Your task to perform on an android device: change keyboard looks Image 0: 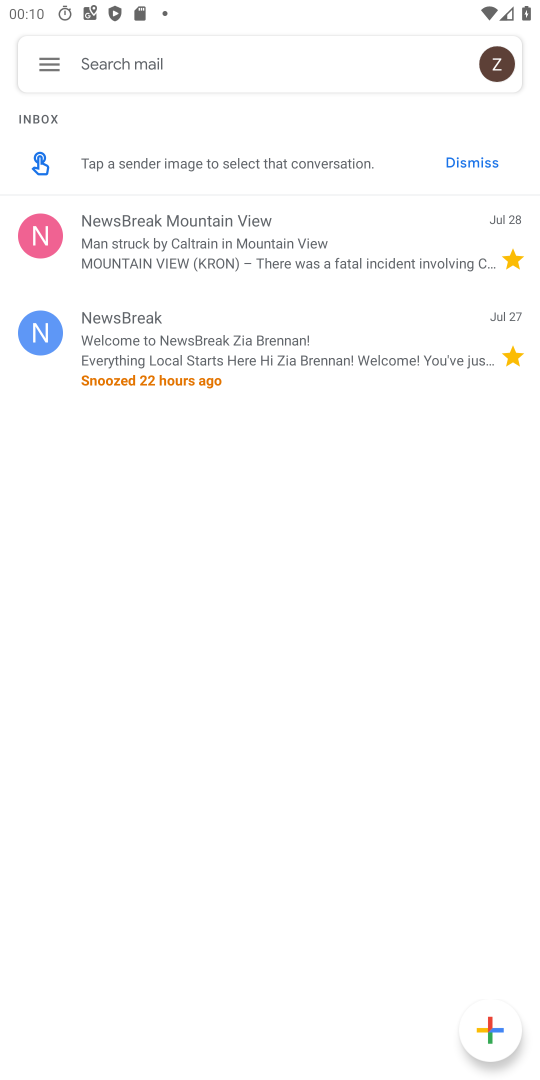
Step 0: press home button
Your task to perform on an android device: change keyboard looks Image 1: 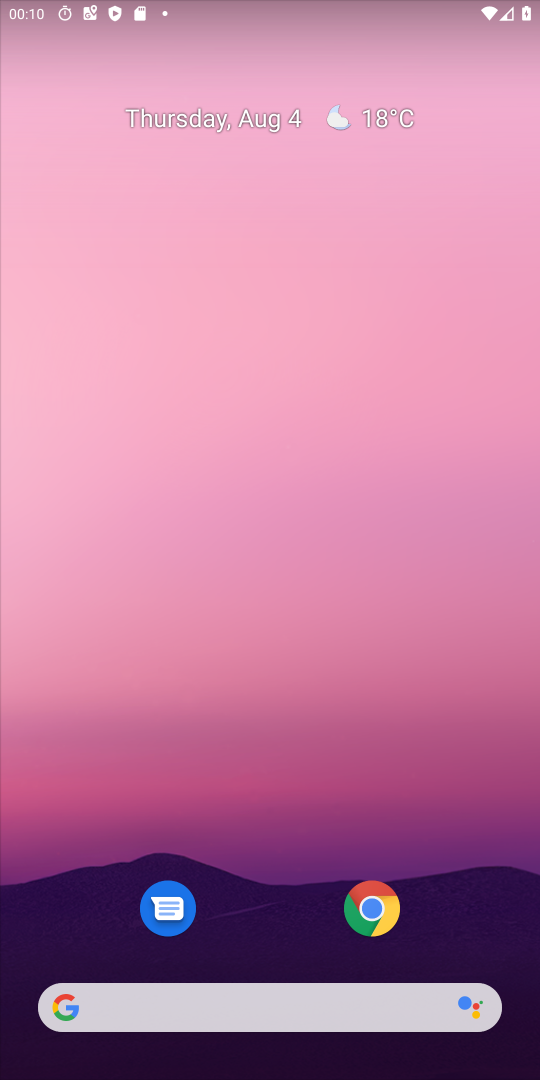
Step 1: drag from (398, 968) to (244, 223)
Your task to perform on an android device: change keyboard looks Image 2: 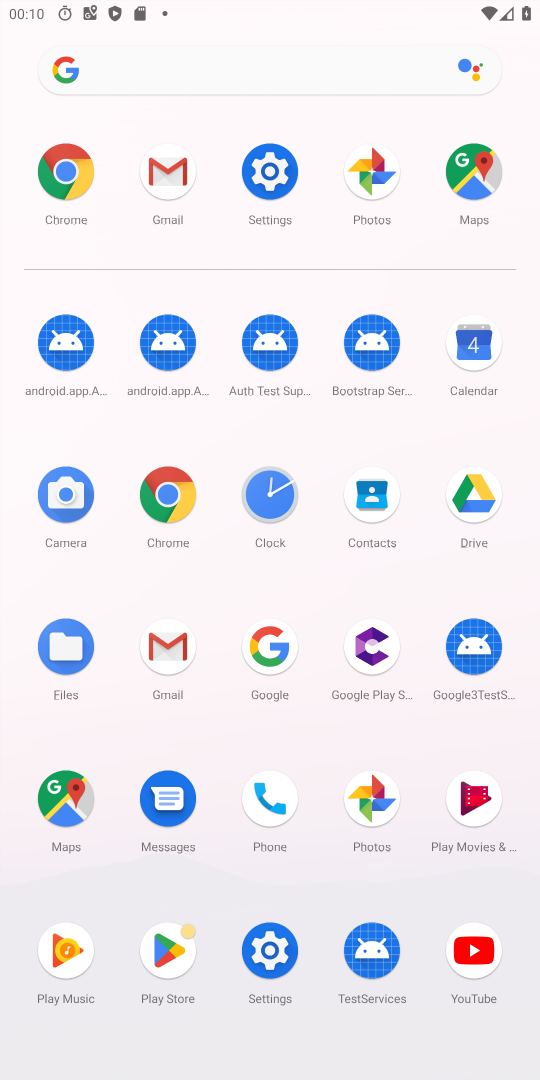
Step 2: click (236, 174)
Your task to perform on an android device: change keyboard looks Image 3: 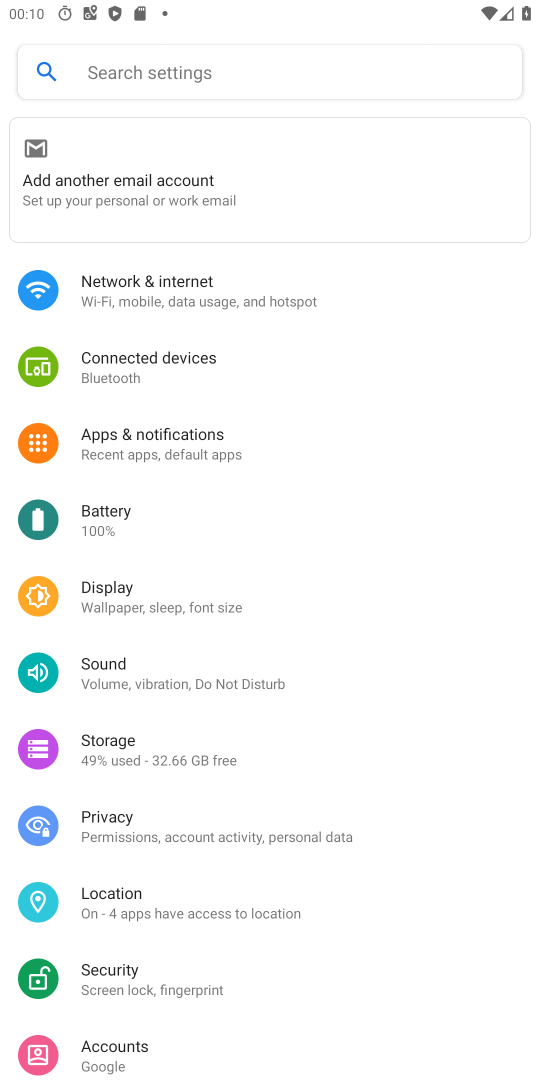
Step 3: click (158, 84)
Your task to perform on an android device: change keyboard looks Image 4: 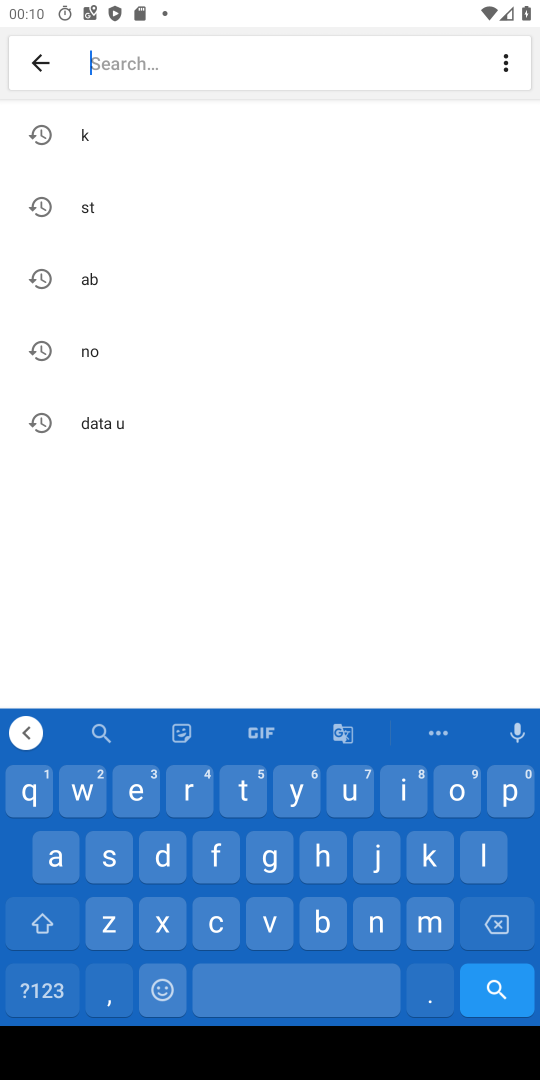
Step 4: click (129, 143)
Your task to perform on an android device: change keyboard looks Image 5: 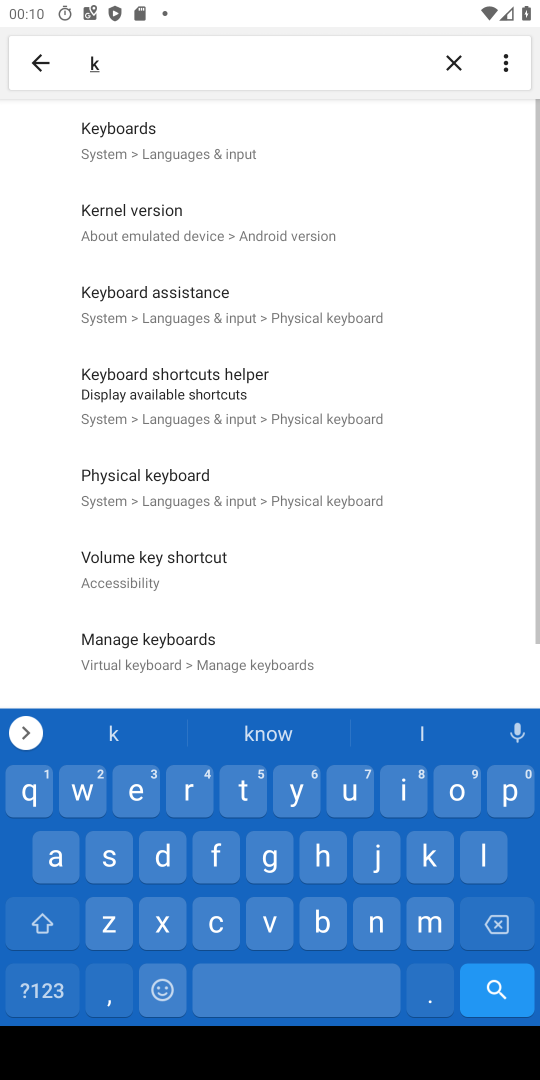
Step 5: click (140, 157)
Your task to perform on an android device: change keyboard looks Image 6: 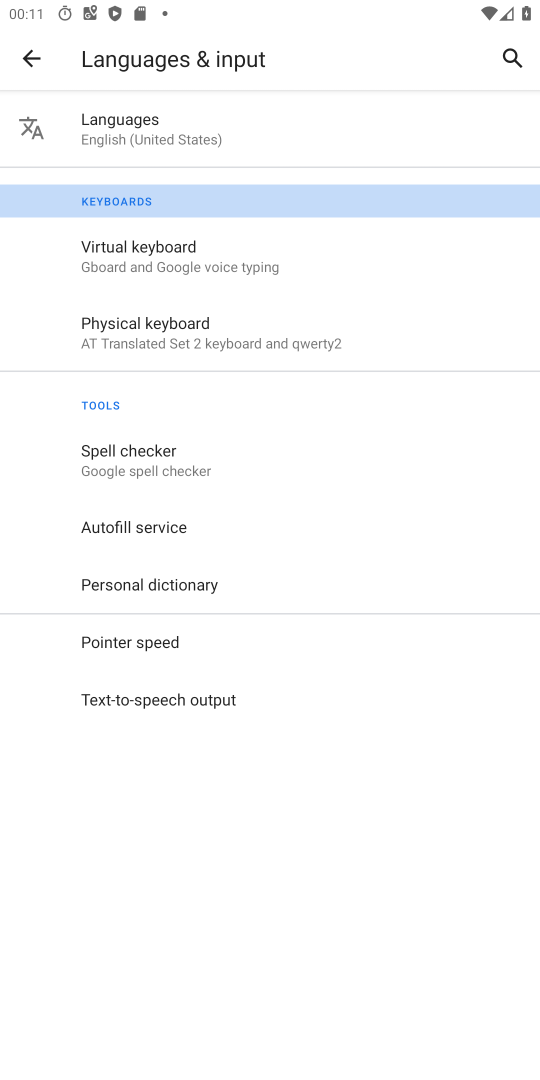
Step 6: click (126, 263)
Your task to perform on an android device: change keyboard looks Image 7: 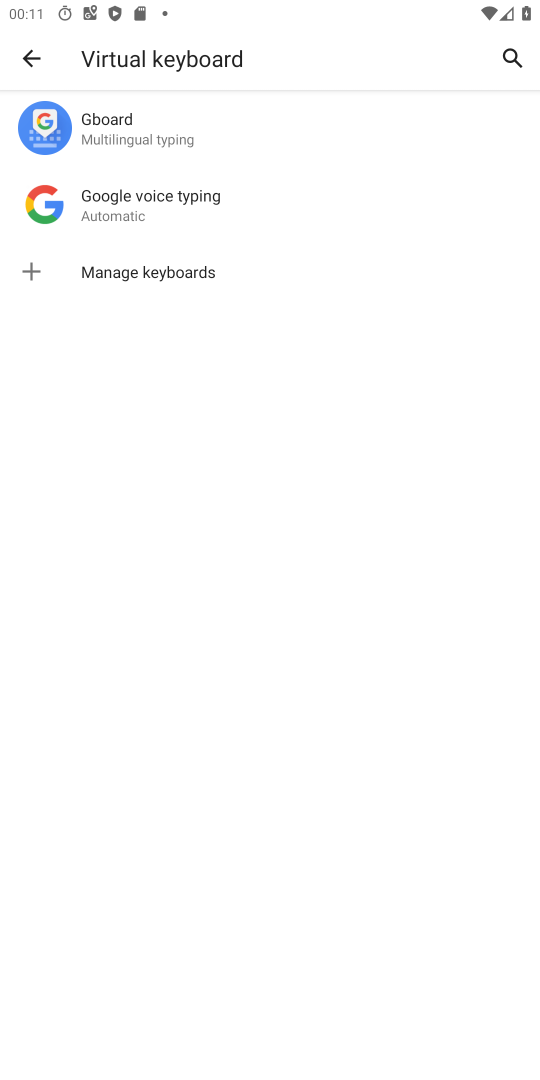
Step 7: click (159, 137)
Your task to perform on an android device: change keyboard looks Image 8: 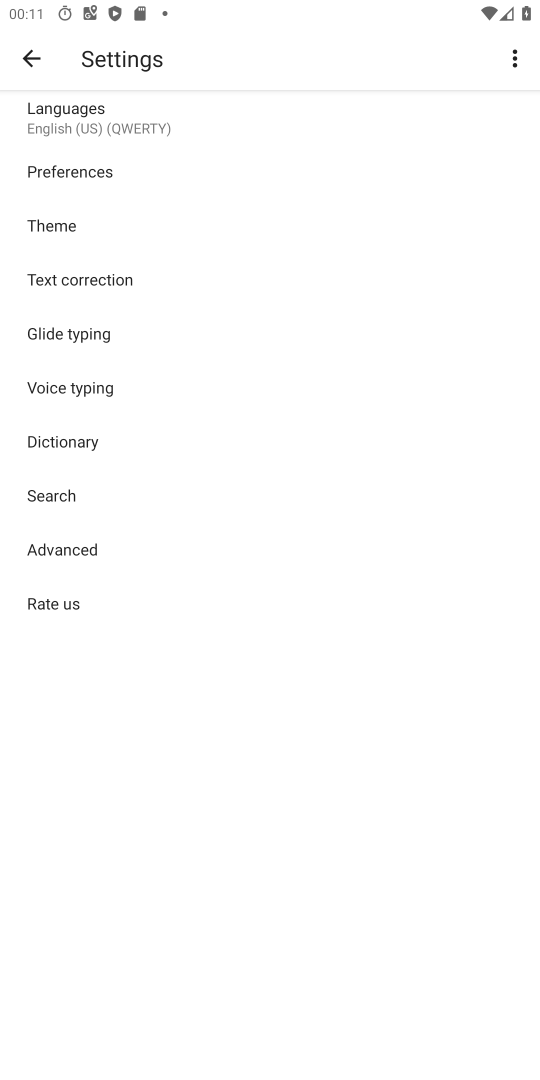
Step 8: click (76, 230)
Your task to perform on an android device: change keyboard looks Image 9: 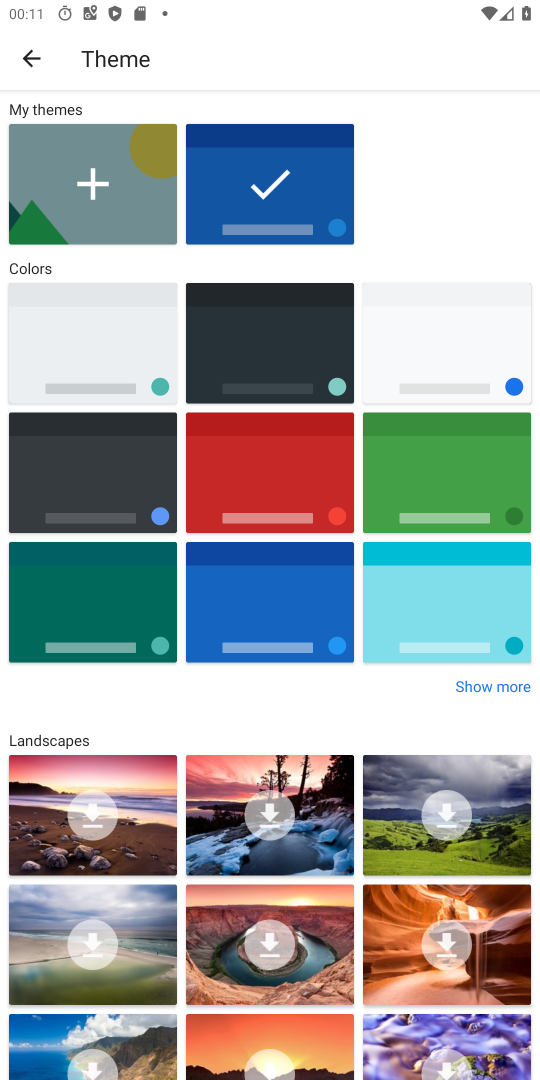
Step 9: click (99, 472)
Your task to perform on an android device: change keyboard looks Image 10: 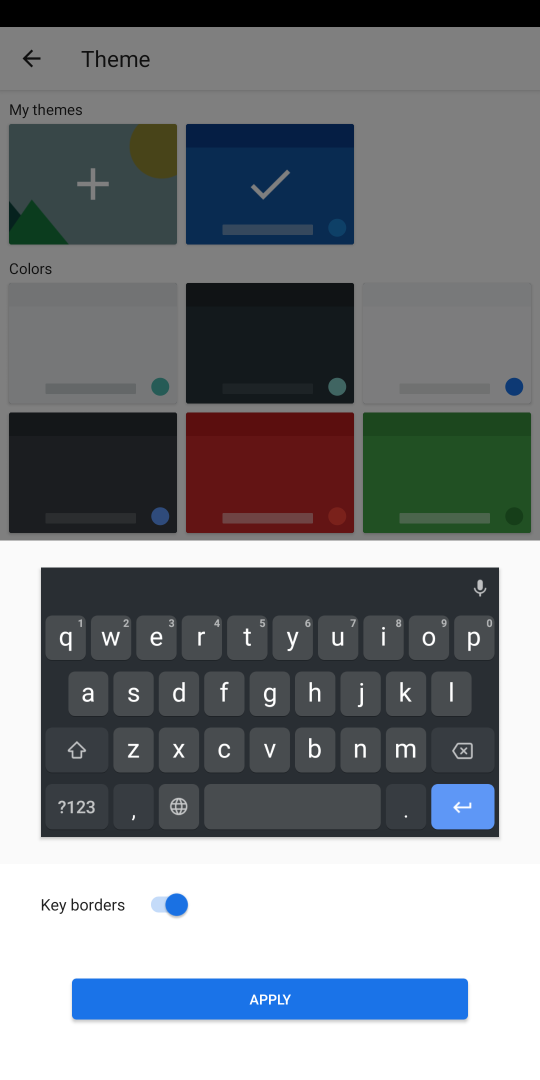
Step 10: click (285, 1002)
Your task to perform on an android device: change keyboard looks Image 11: 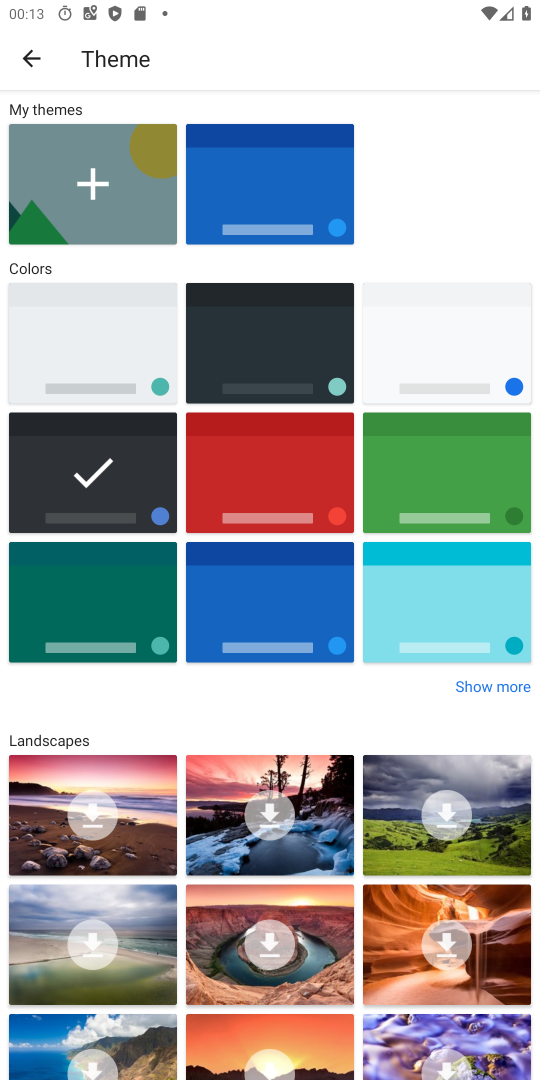
Step 11: task complete